Your task to perform on an android device: Show me productivity apps on the Play Store Image 0: 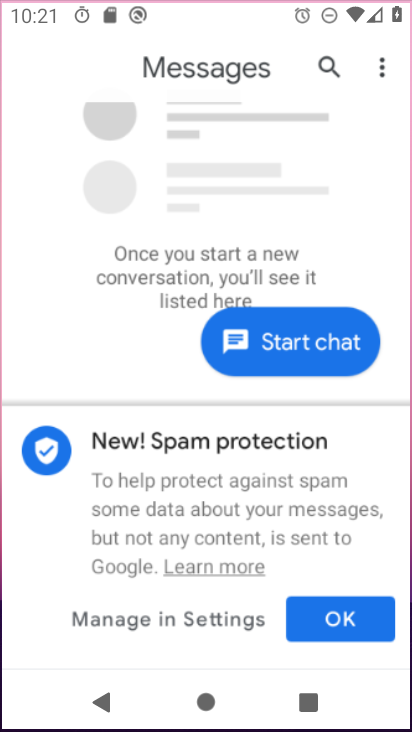
Step 0: drag from (396, 644) to (303, 59)
Your task to perform on an android device: Show me productivity apps on the Play Store Image 1: 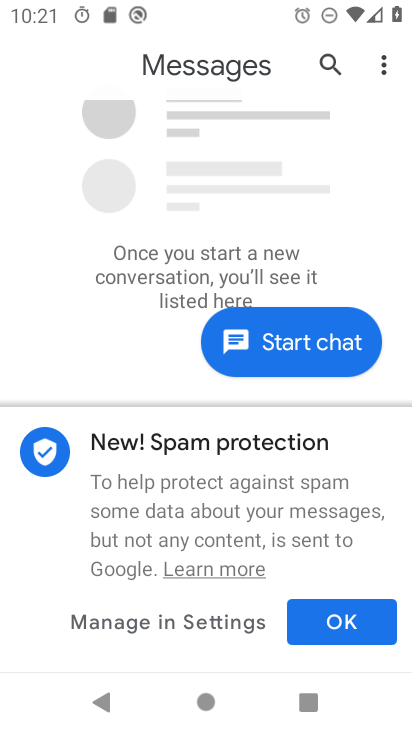
Step 1: press home button
Your task to perform on an android device: Show me productivity apps on the Play Store Image 2: 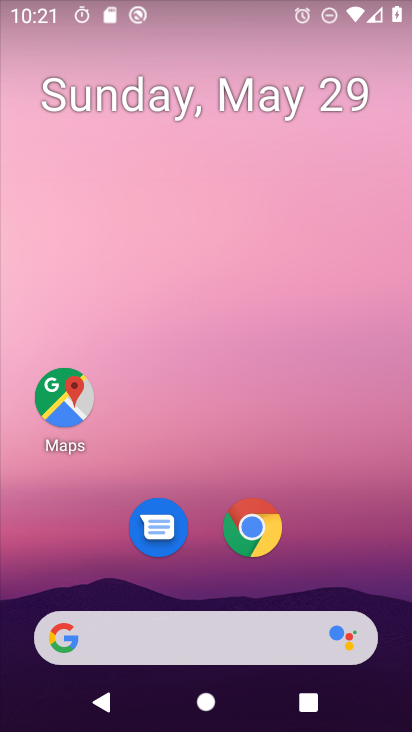
Step 2: drag from (384, 668) to (271, 53)
Your task to perform on an android device: Show me productivity apps on the Play Store Image 3: 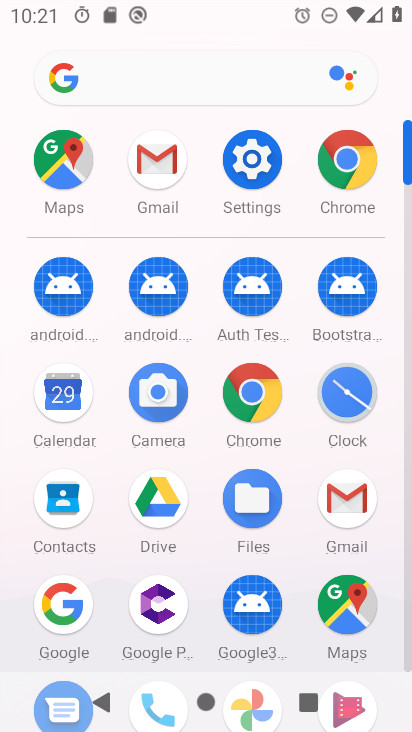
Step 3: drag from (209, 639) to (177, 219)
Your task to perform on an android device: Show me productivity apps on the Play Store Image 4: 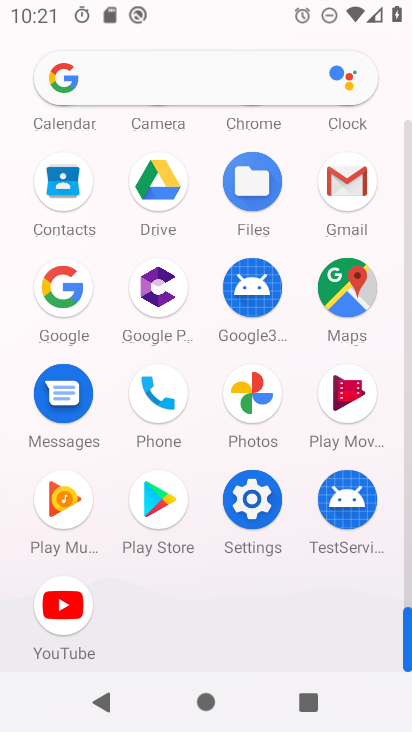
Step 4: click (160, 511)
Your task to perform on an android device: Show me productivity apps on the Play Store Image 5: 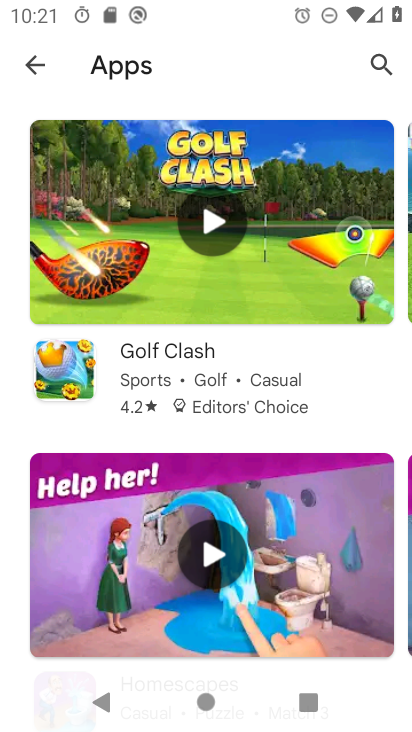
Step 5: click (28, 75)
Your task to perform on an android device: Show me productivity apps on the Play Store Image 6: 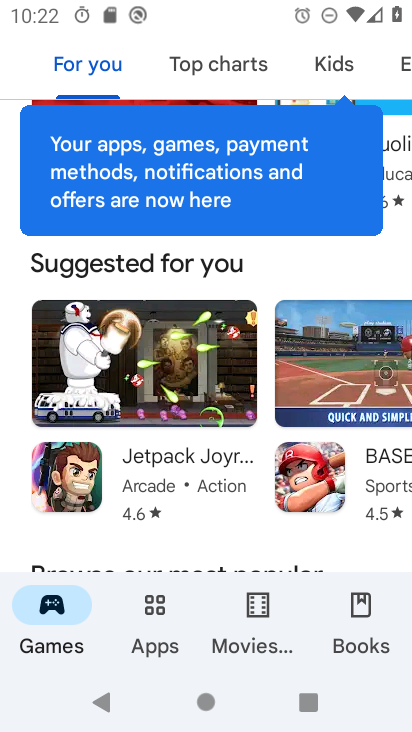
Step 6: task complete